Your task to perform on an android device: Open Google Chrome Image 0: 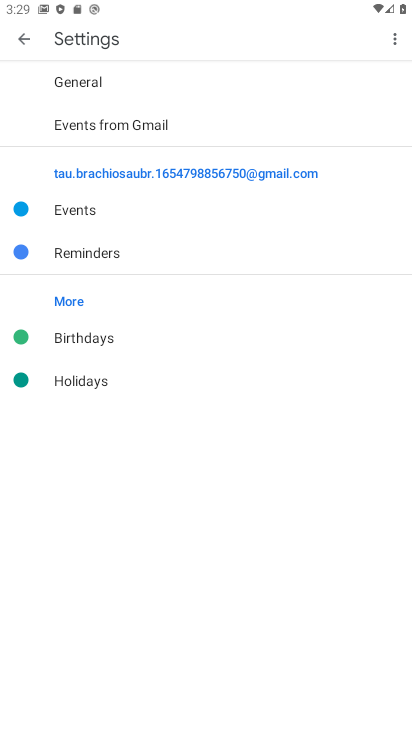
Step 0: press home button
Your task to perform on an android device: Open Google Chrome Image 1: 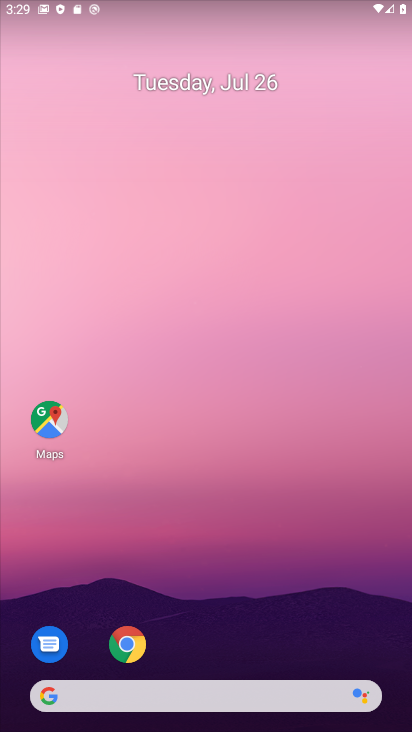
Step 1: click (128, 644)
Your task to perform on an android device: Open Google Chrome Image 2: 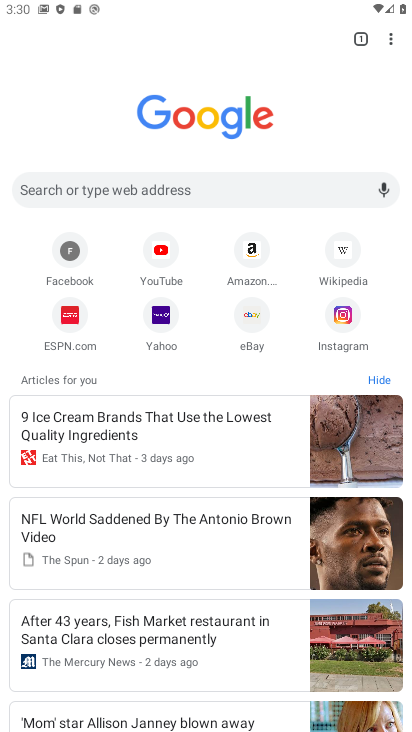
Step 2: task complete